Your task to perform on an android device: star an email in the gmail app Image 0: 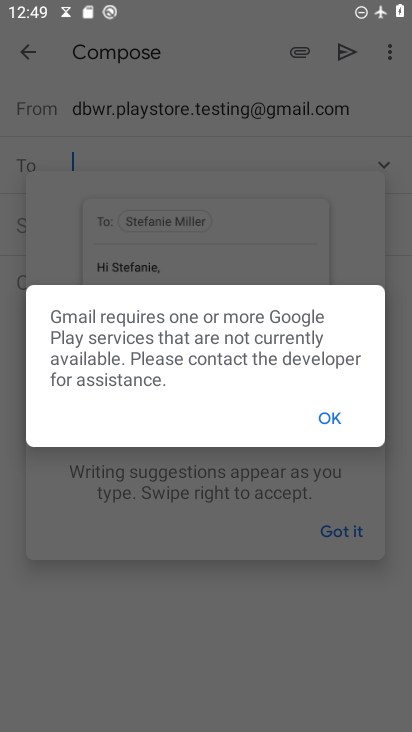
Step 0: press home button
Your task to perform on an android device: star an email in the gmail app Image 1: 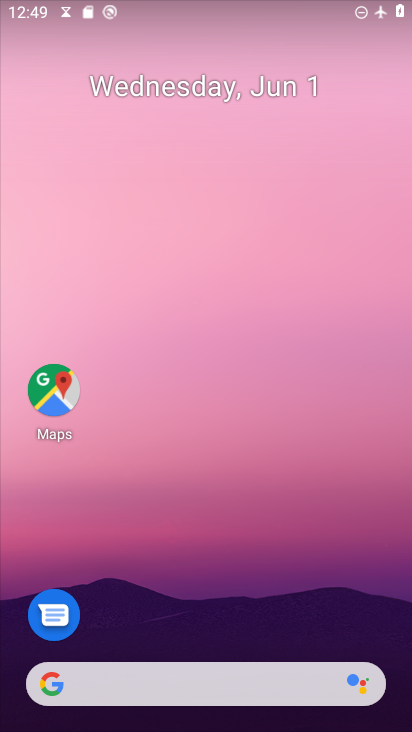
Step 1: drag from (253, 619) to (245, 124)
Your task to perform on an android device: star an email in the gmail app Image 2: 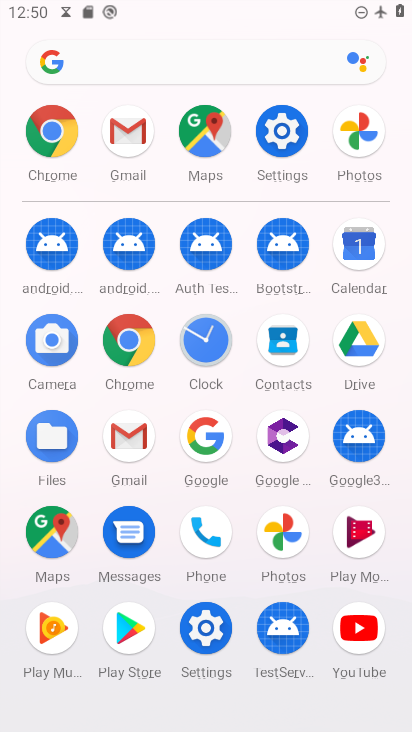
Step 2: click (137, 151)
Your task to perform on an android device: star an email in the gmail app Image 3: 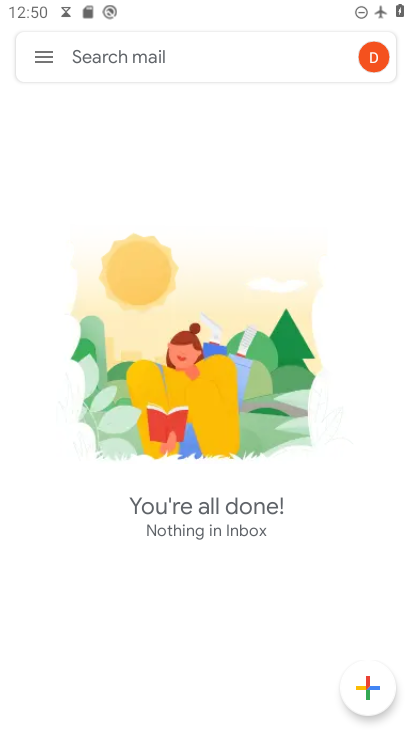
Step 3: click (33, 64)
Your task to perform on an android device: star an email in the gmail app Image 4: 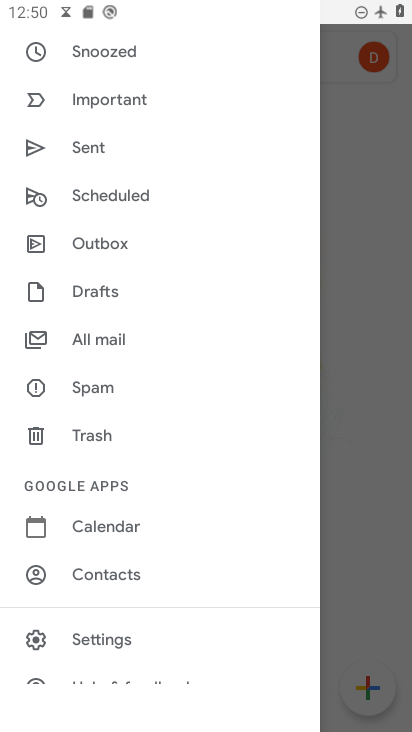
Step 4: drag from (196, 135) to (187, 410)
Your task to perform on an android device: star an email in the gmail app Image 5: 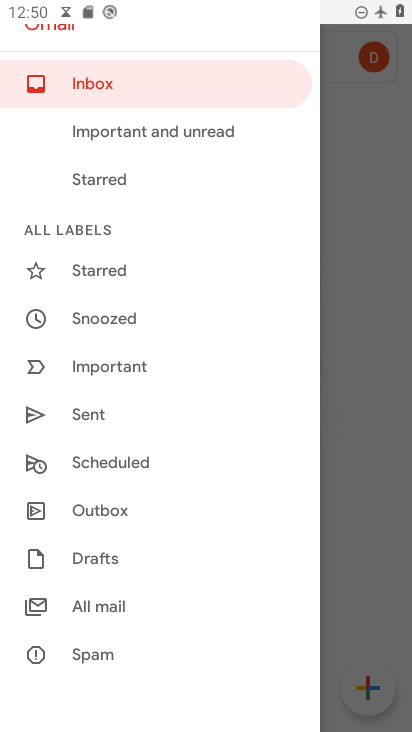
Step 5: click (187, 98)
Your task to perform on an android device: star an email in the gmail app Image 6: 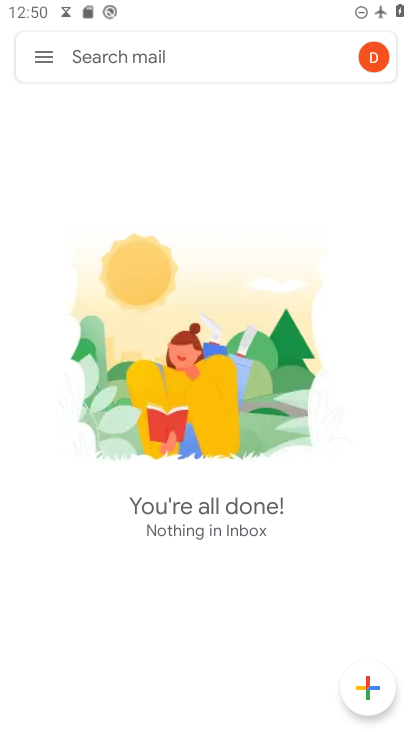
Step 6: task complete